Your task to perform on an android device: Do I have any events this weekend? Image 0: 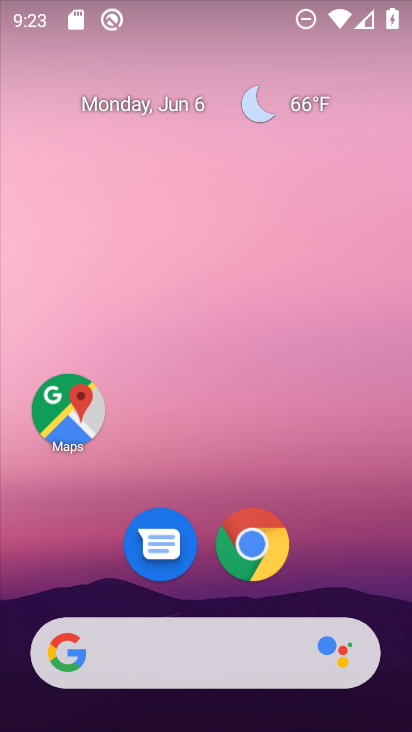
Step 0: drag from (215, 517) to (219, 206)
Your task to perform on an android device: Do I have any events this weekend? Image 1: 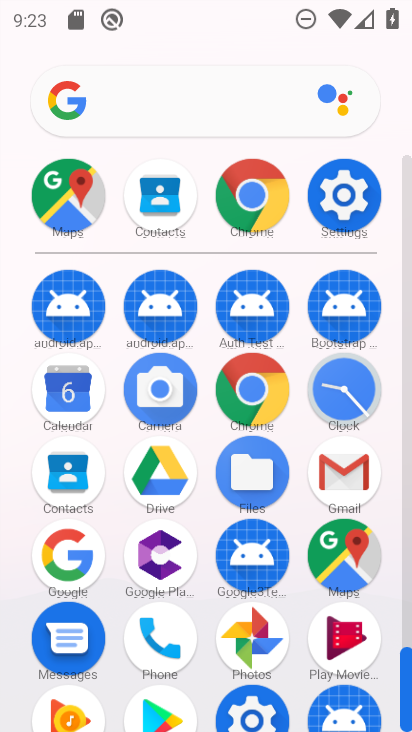
Step 1: click (80, 390)
Your task to perform on an android device: Do I have any events this weekend? Image 2: 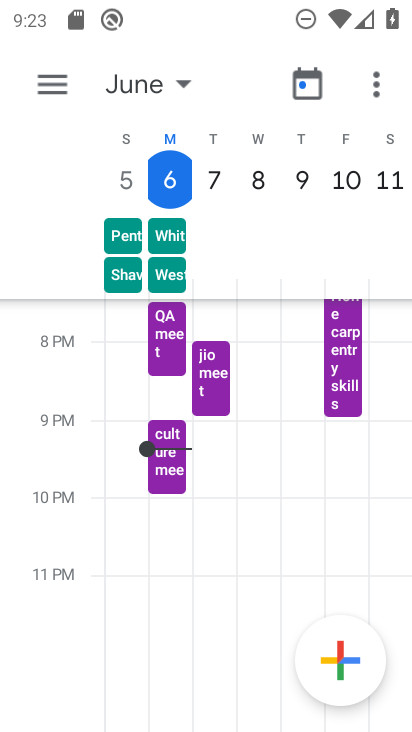
Step 2: click (171, 94)
Your task to perform on an android device: Do I have any events this weekend? Image 3: 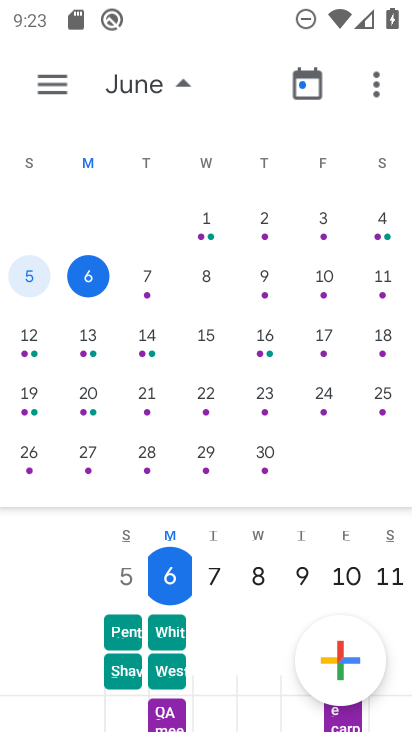
Step 3: click (147, 282)
Your task to perform on an android device: Do I have any events this weekend? Image 4: 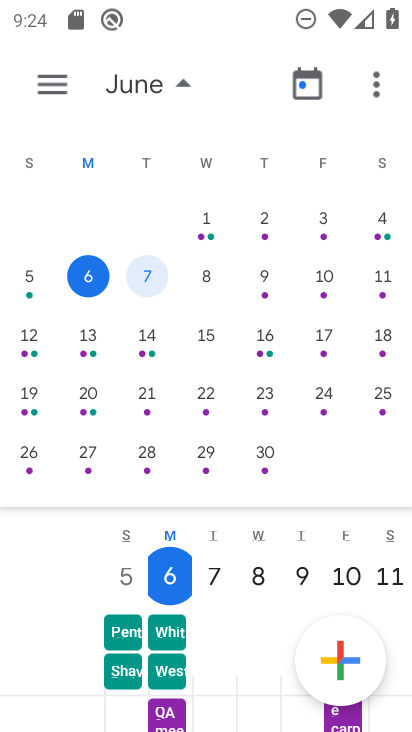
Step 4: click (166, 277)
Your task to perform on an android device: Do I have any events this weekend? Image 5: 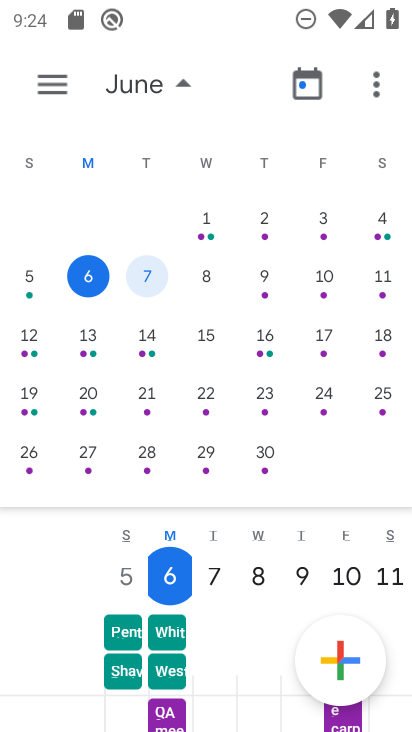
Step 5: click (208, 271)
Your task to perform on an android device: Do I have any events this weekend? Image 6: 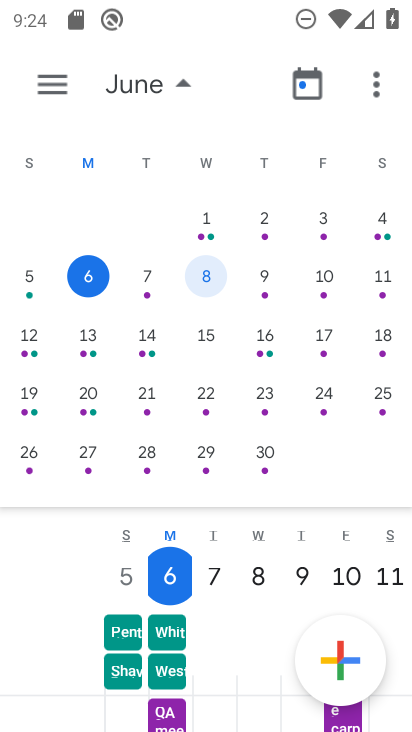
Step 6: click (272, 272)
Your task to perform on an android device: Do I have any events this weekend? Image 7: 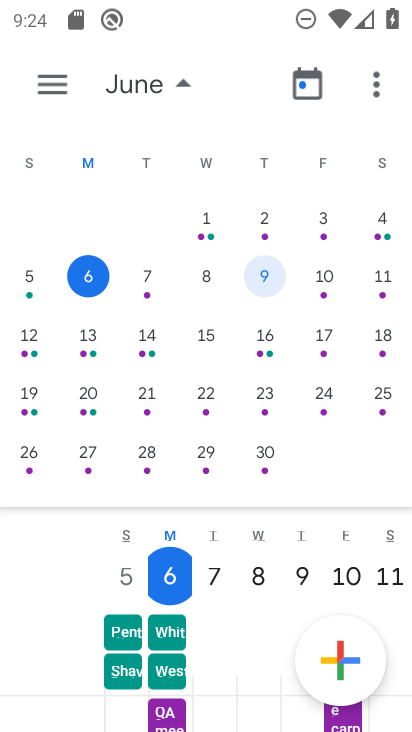
Step 7: click (320, 279)
Your task to perform on an android device: Do I have any events this weekend? Image 8: 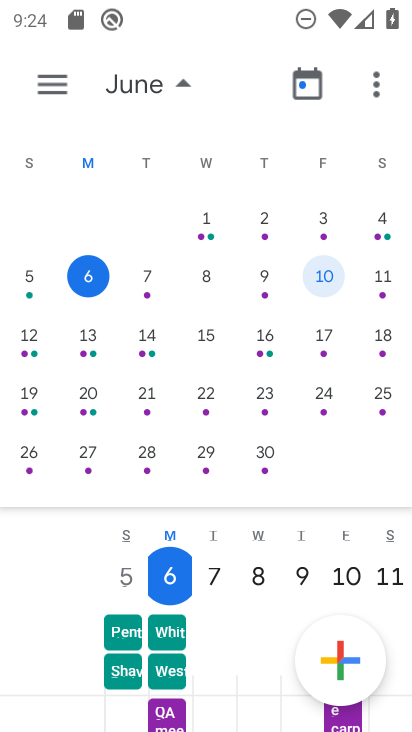
Step 8: click (378, 280)
Your task to perform on an android device: Do I have any events this weekend? Image 9: 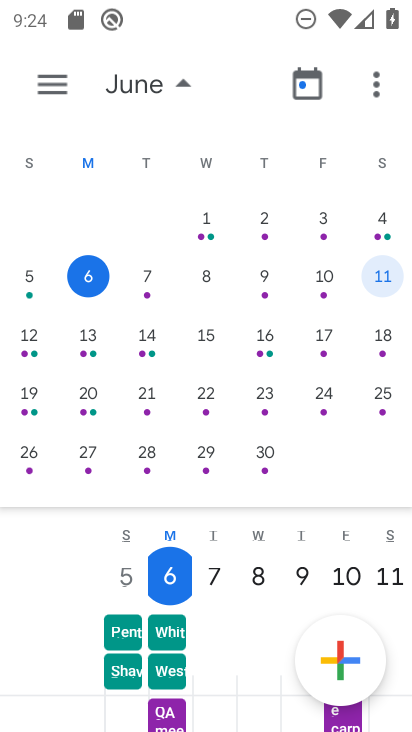
Step 9: task complete